Your task to perform on an android device: Open Google Chrome and open the bookmarks view Image 0: 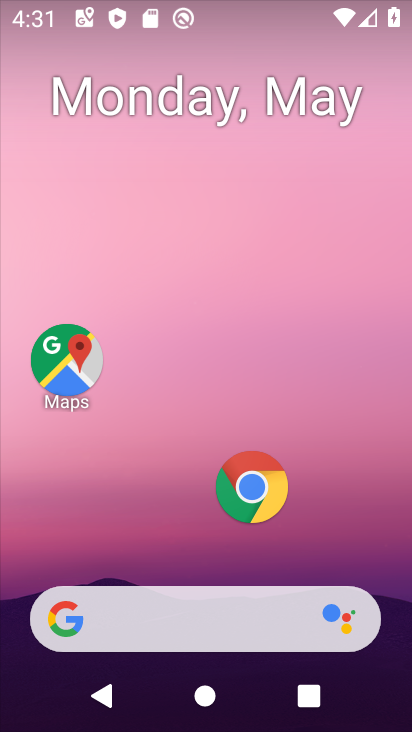
Step 0: click (249, 490)
Your task to perform on an android device: Open Google Chrome and open the bookmarks view Image 1: 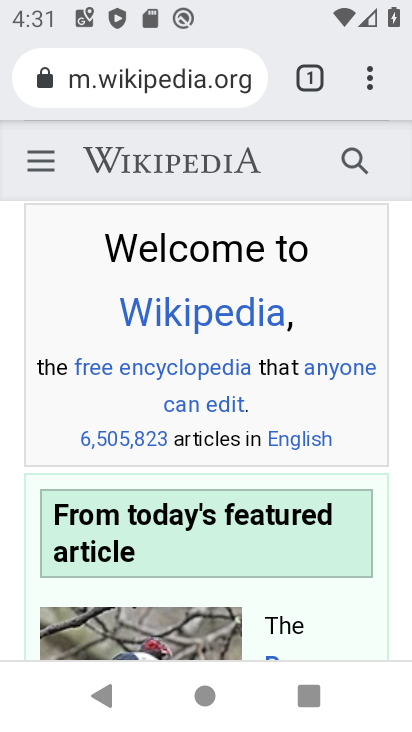
Step 1: click (365, 71)
Your task to perform on an android device: Open Google Chrome and open the bookmarks view Image 2: 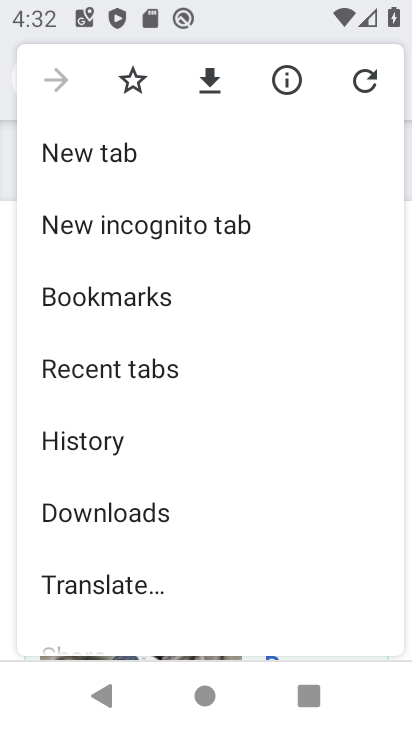
Step 2: click (103, 303)
Your task to perform on an android device: Open Google Chrome and open the bookmarks view Image 3: 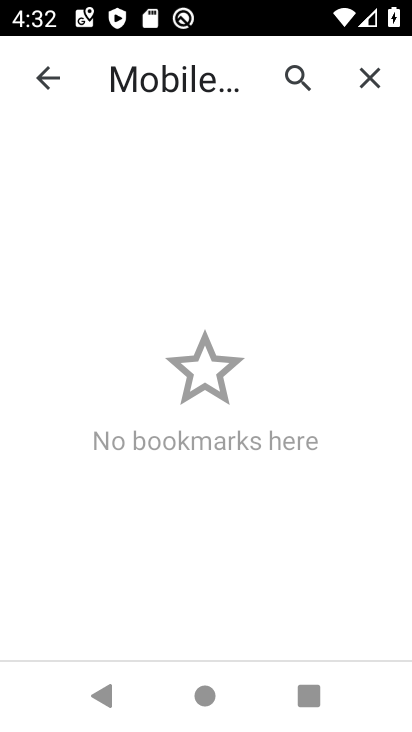
Step 3: task complete